Your task to perform on an android device: Show me productivity apps on the Play Store Image 0: 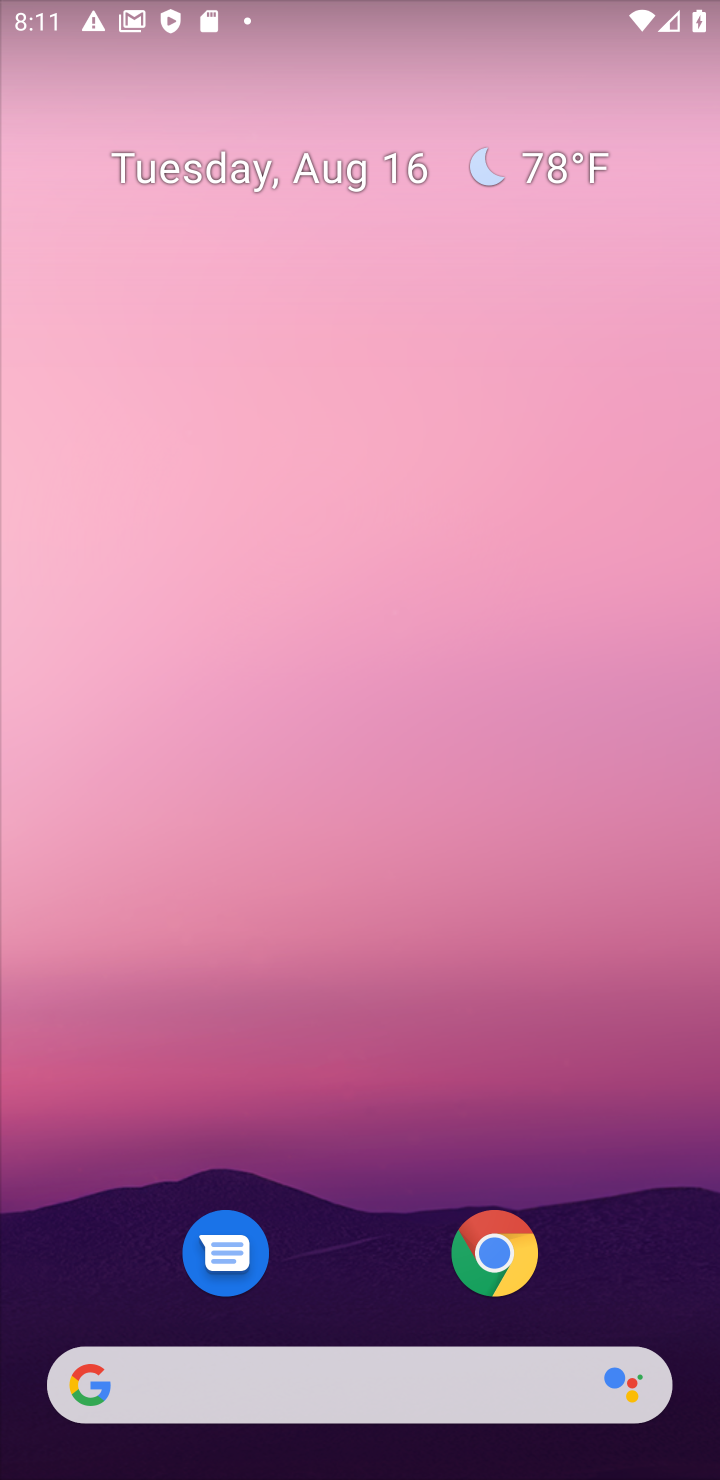
Step 0: drag from (449, 1024) to (636, 310)
Your task to perform on an android device: Show me productivity apps on the Play Store Image 1: 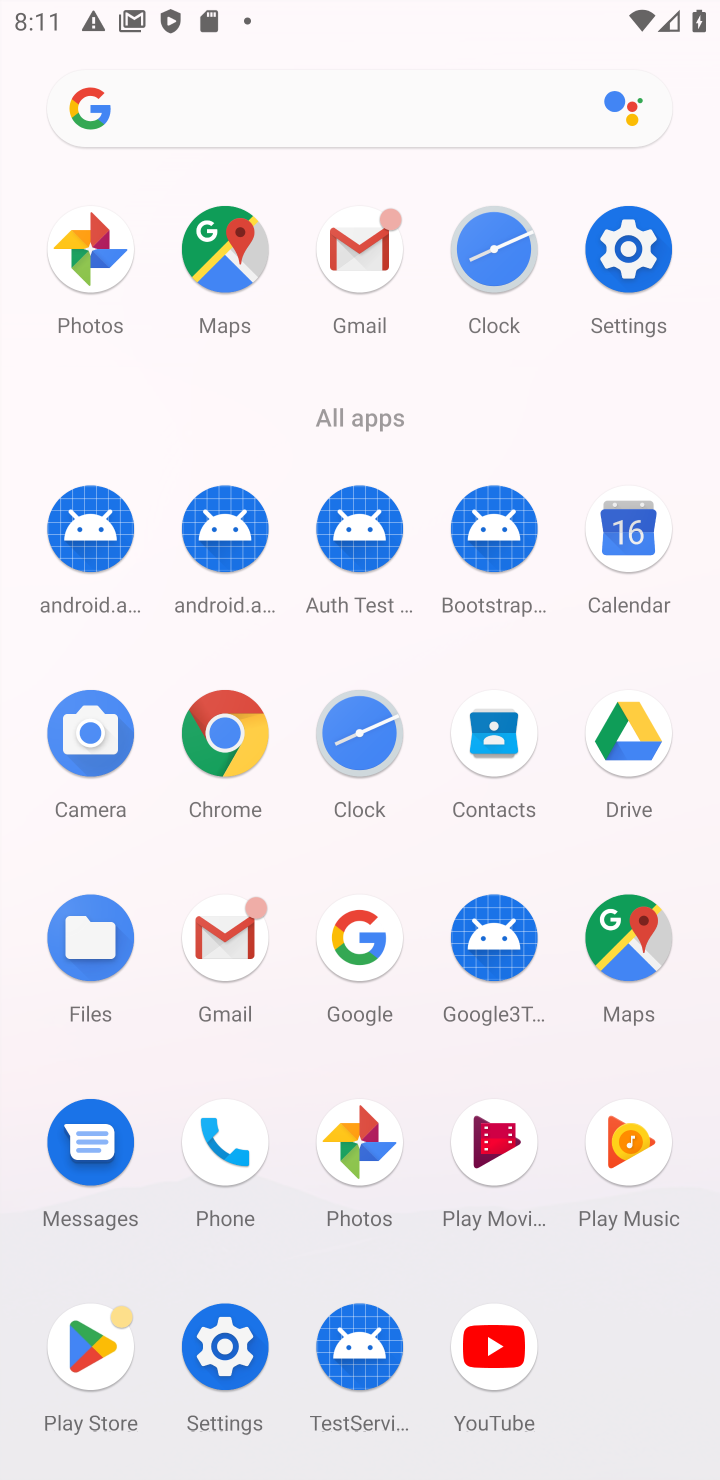
Step 1: click (89, 1362)
Your task to perform on an android device: Show me productivity apps on the Play Store Image 2: 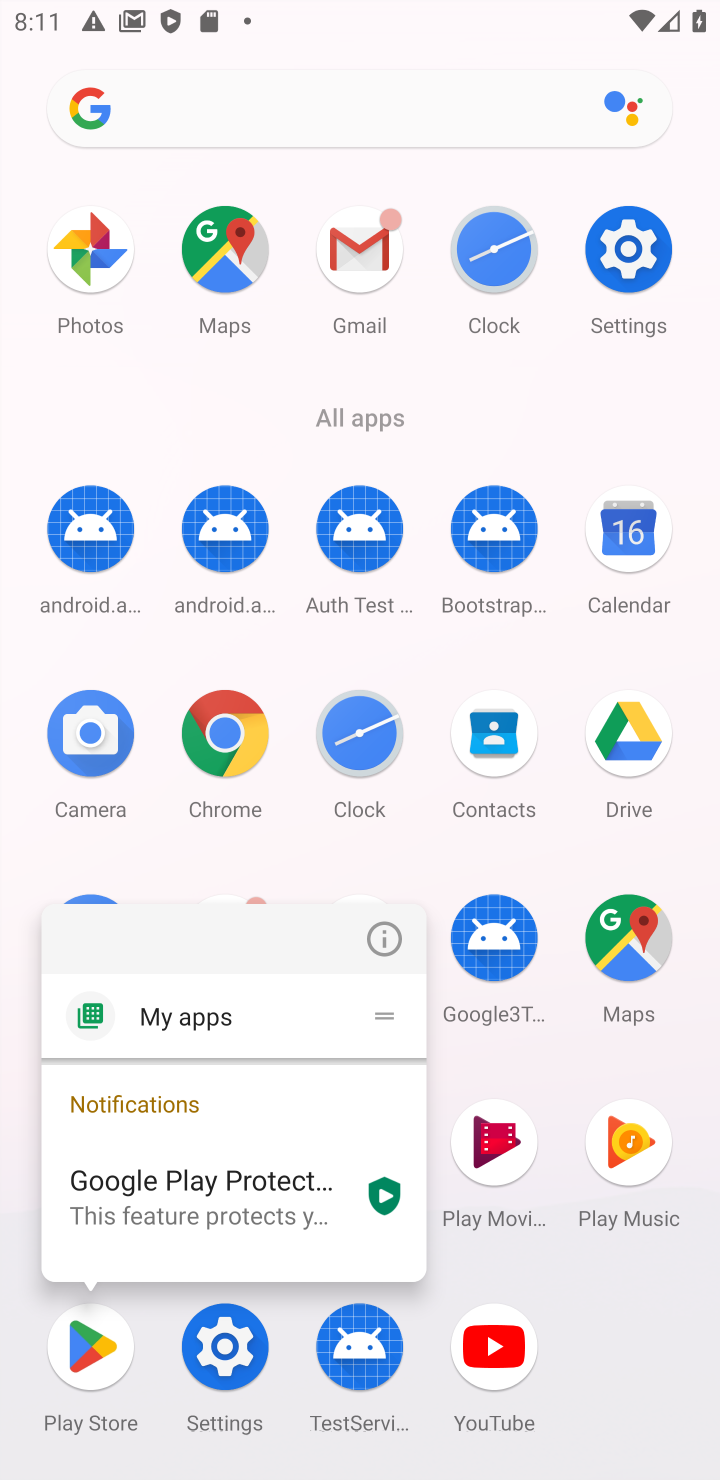
Step 2: click (89, 1362)
Your task to perform on an android device: Show me productivity apps on the Play Store Image 3: 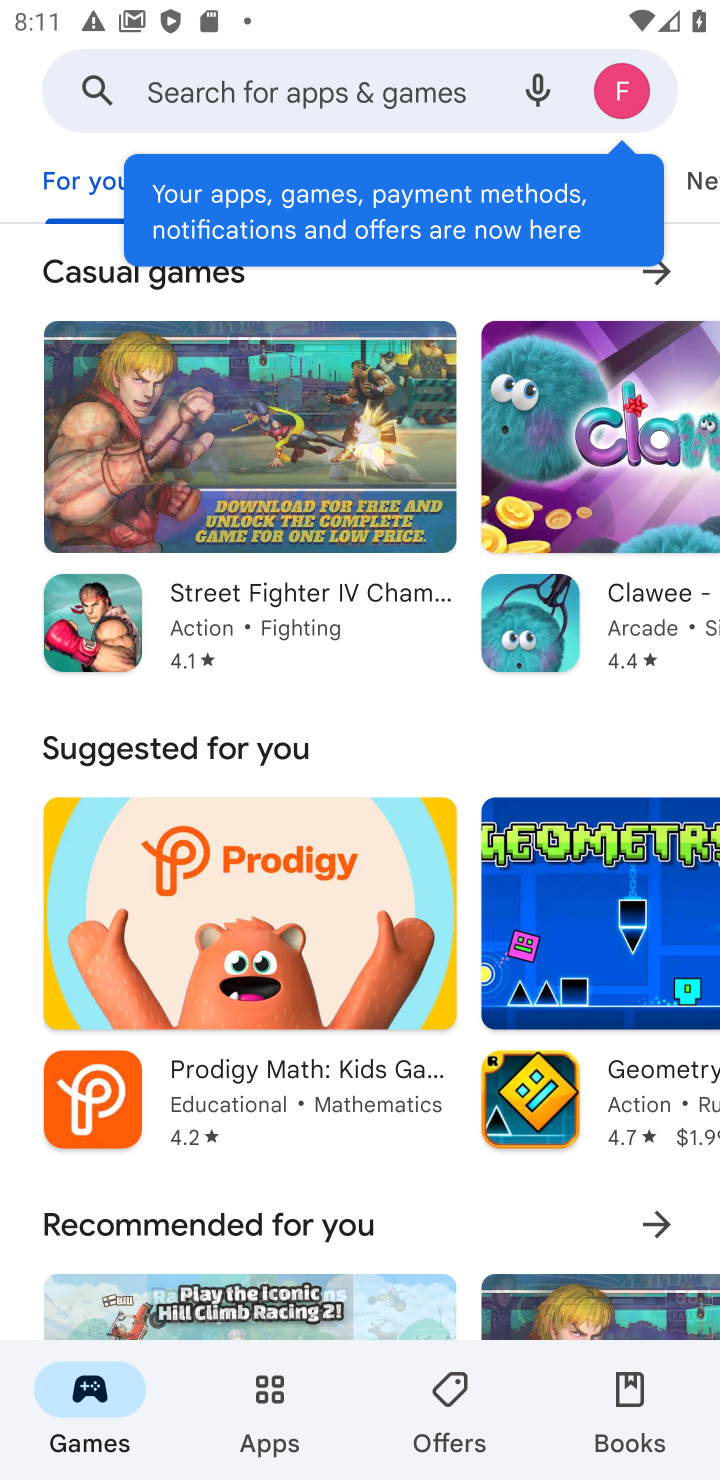
Step 3: click (267, 1394)
Your task to perform on an android device: Show me productivity apps on the Play Store Image 4: 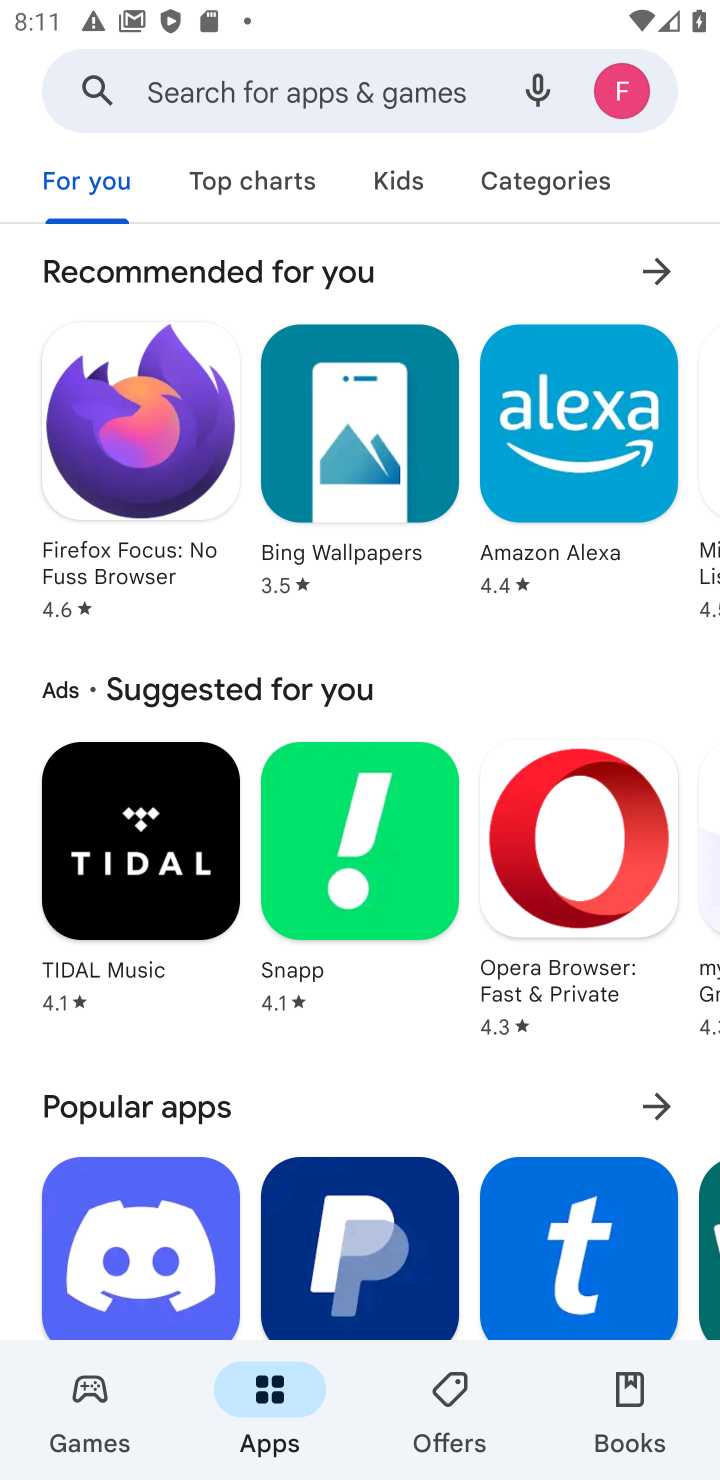
Step 4: click (593, 176)
Your task to perform on an android device: Show me productivity apps on the Play Store Image 5: 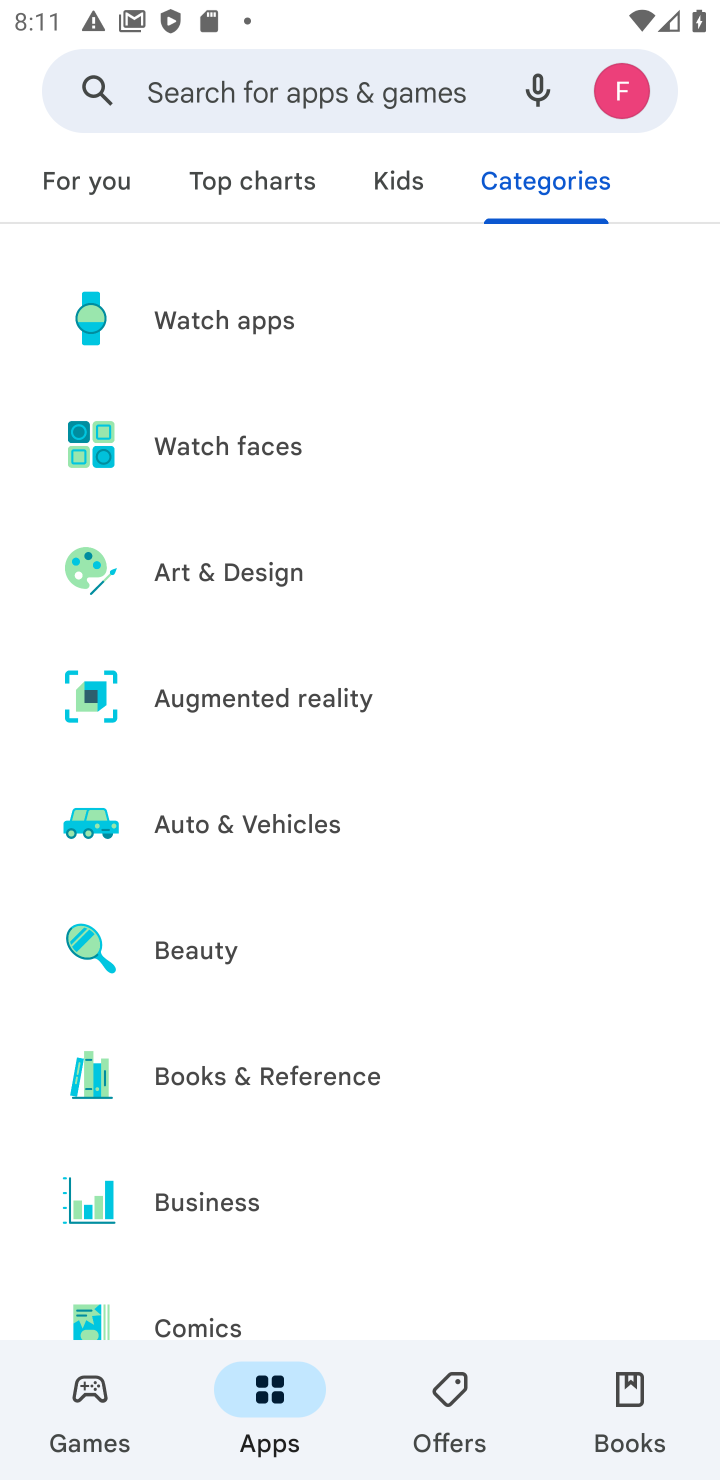
Step 5: drag from (425, 1263) to (710, 153)
Your task to perform on an android device: Show me productivity apps on the Play Store Image 6: 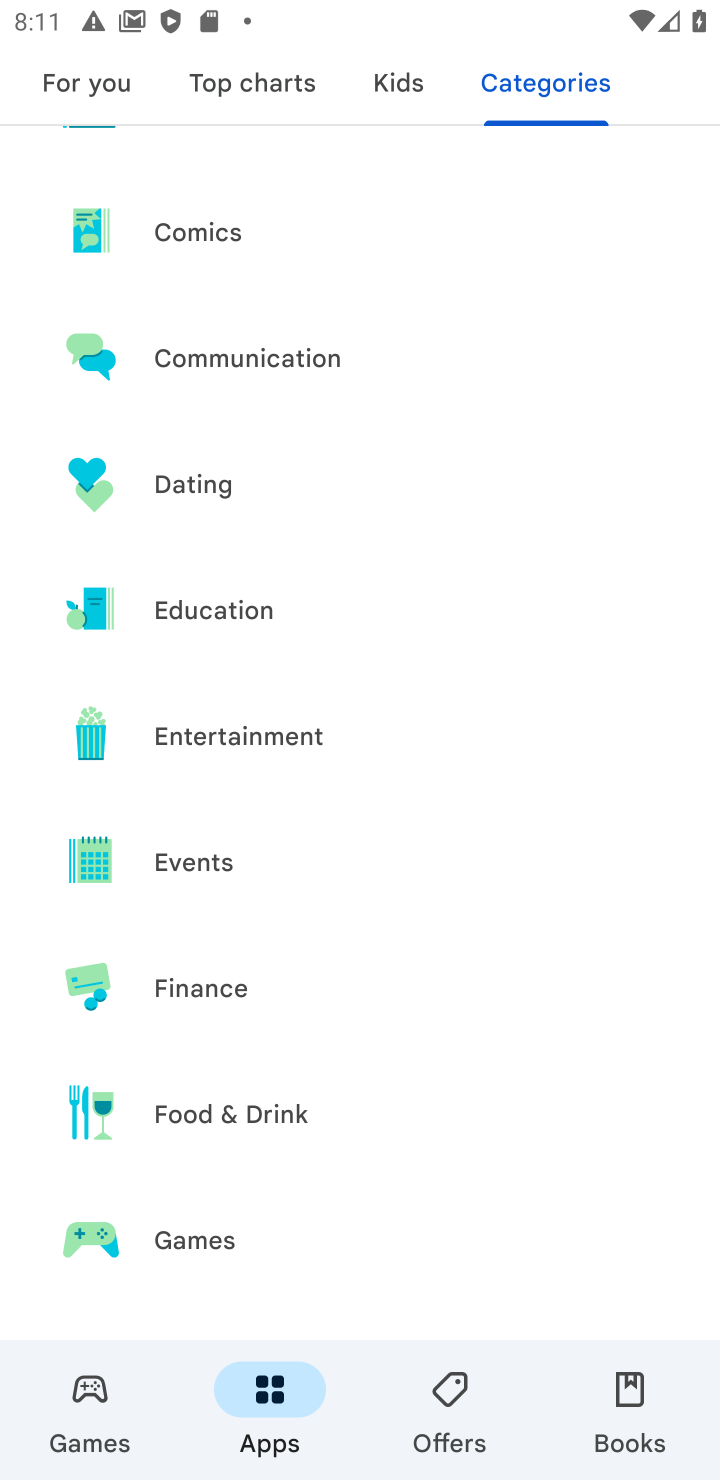
Step 6: drag from (349, 1158) to (649, 194)
Your task to perform on an android device: Show me productivity apps on the Play Store Image 7: 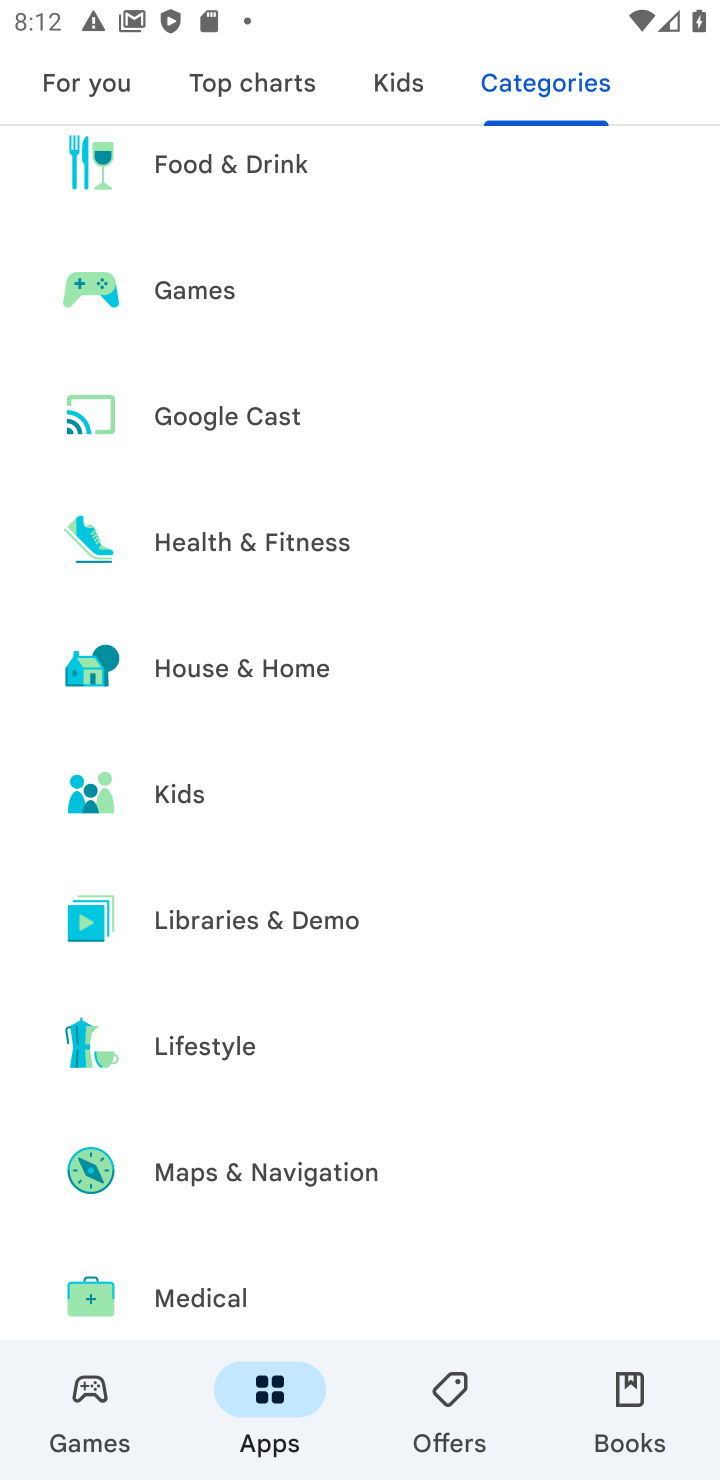
Step 7: drag from (348, 1213) to (663, 306)
Your task to perform on an android device: Show me productivity apps on the Play Store Image 8: 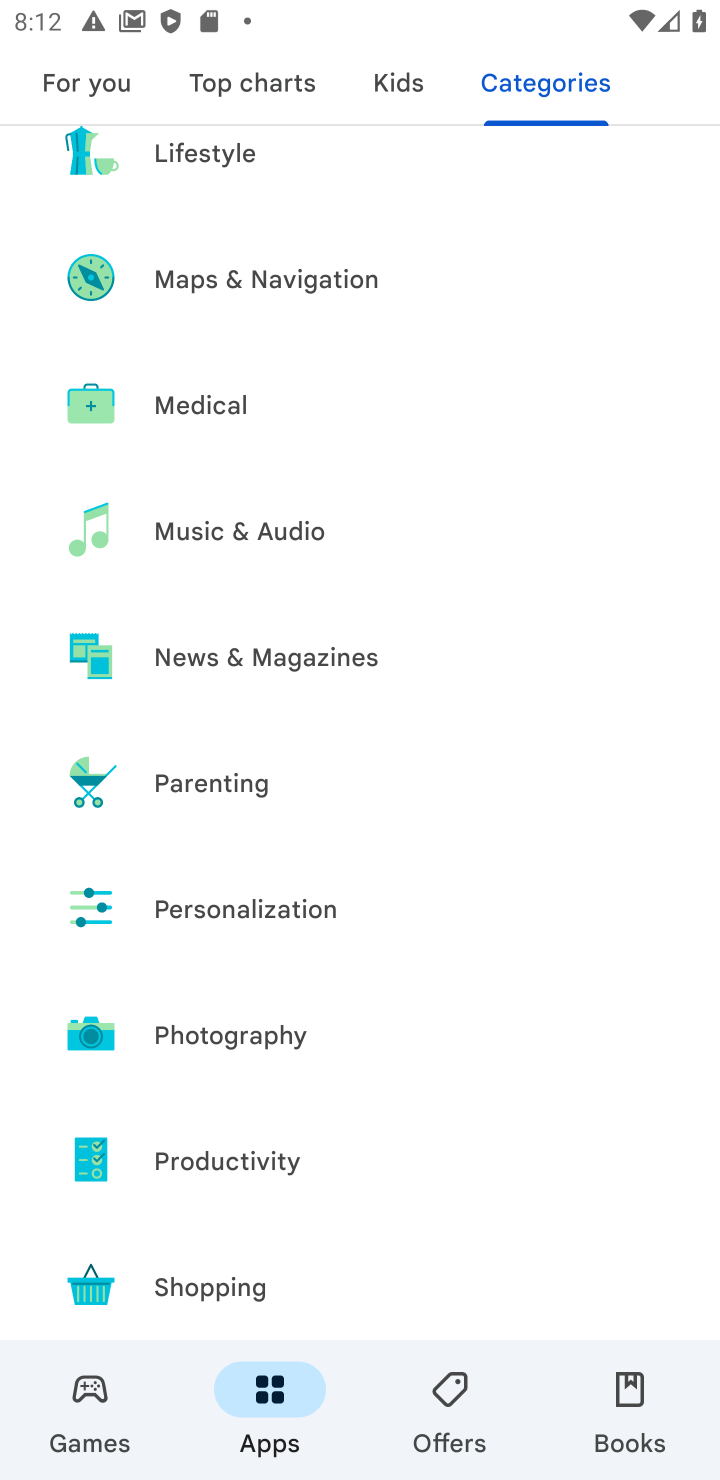
Step 8: click (264, 1159)
Your task to perform on an android device: Show me productivity apps on the Play Store Image 9: 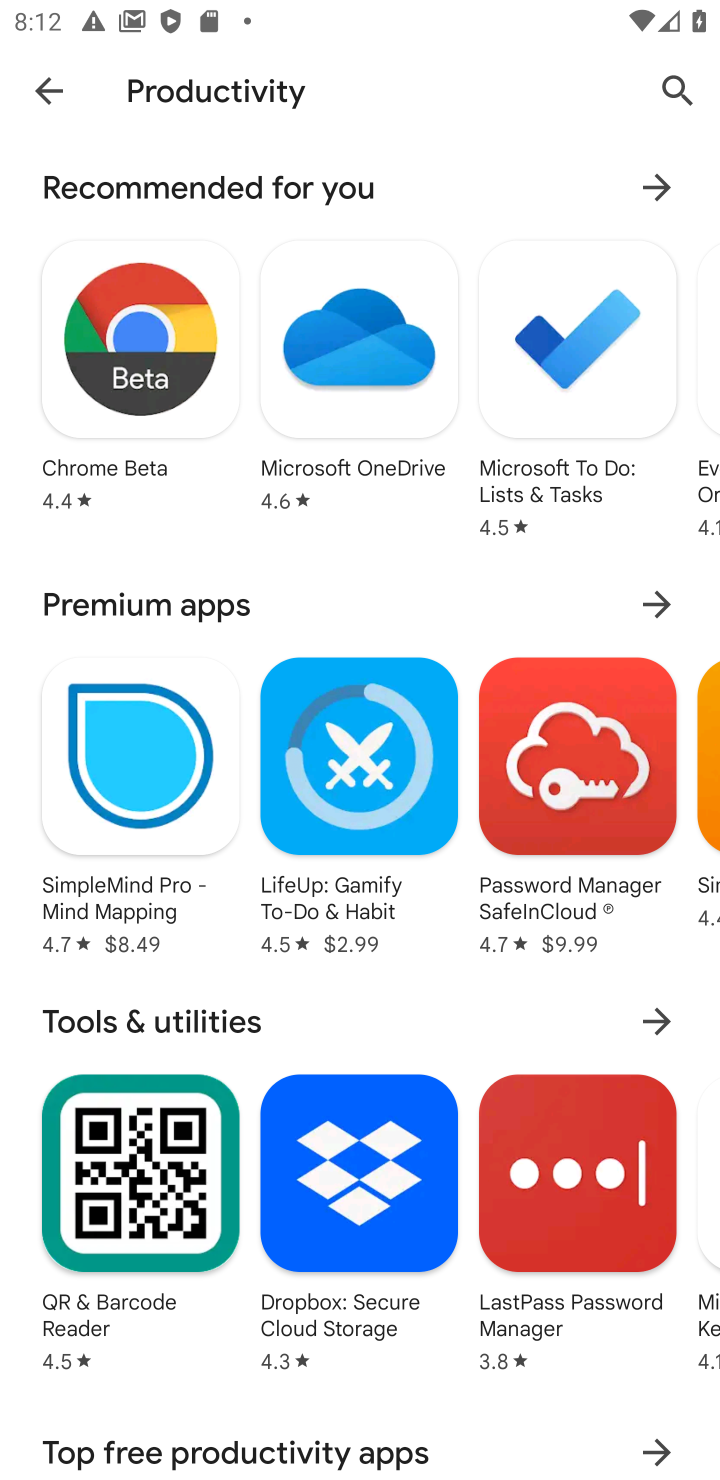
Step 9: task complete